Your task to perform on an android device: open a bookmark in the chrome app Image 0: 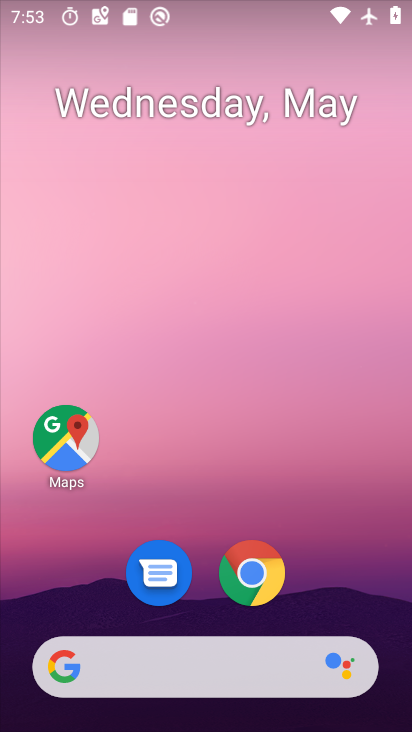
Step 0: click (262, 581)
Your task to perform on an android device: open a bookmark in the chrome app Image 1: 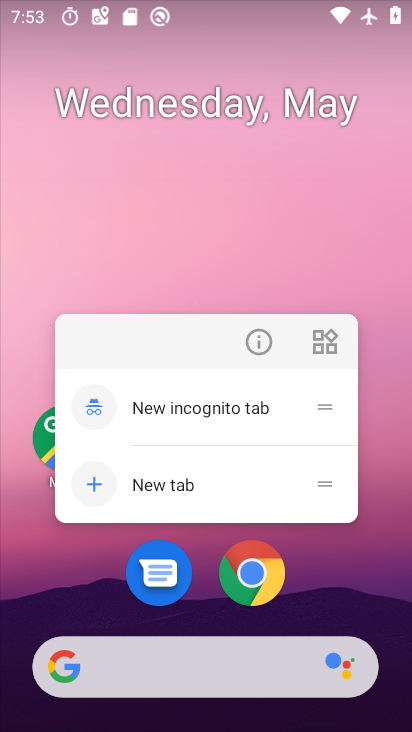
Step 1: click (263, 581)
Your task to perform on an android device: open a bookmark in the chrome app Image 2: 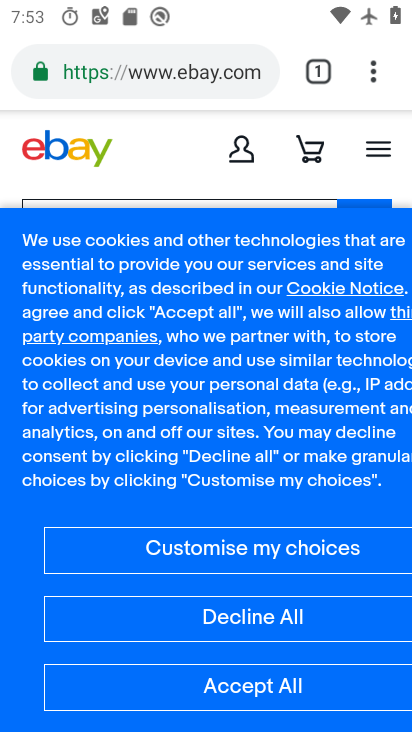
Step 2: click (371, 77)
Your task to perform on an android device: open a bookmark in the chrome app Image 3: 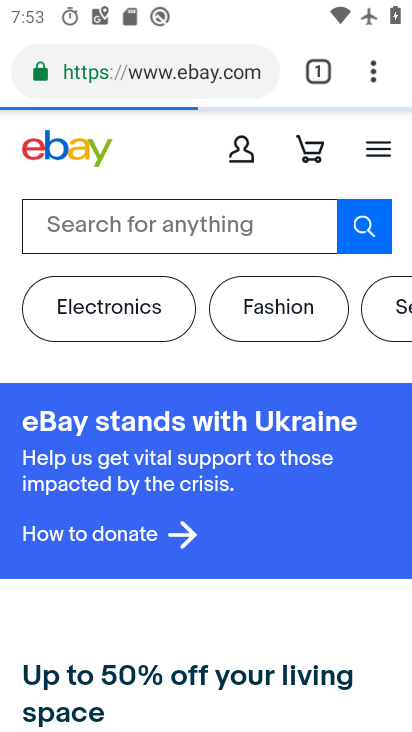
Step 3: click (371, 77)
Your task to perform on an android device: open a bookmark in the chrome app Image 4: 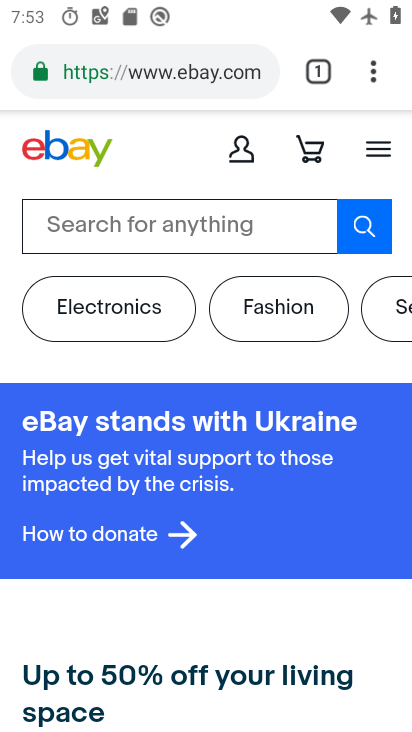
Step 4: click (394, 81)
Your task to perform on an android device: open a bookmark in the chrome app Image 5: 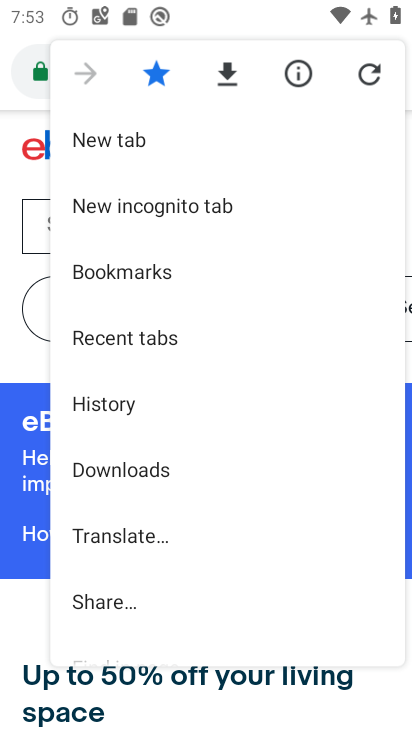
Step 5: click (207, 273)
Your task to perform on an android device: open a bookmark in the chrome app Image 6: 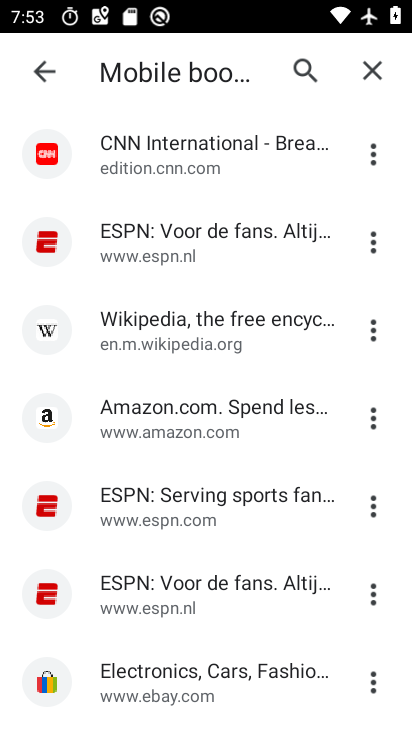
Step 6: click (206, 253)
Your task to perform on an android device: open a bookmark in the chrome app Image 7: 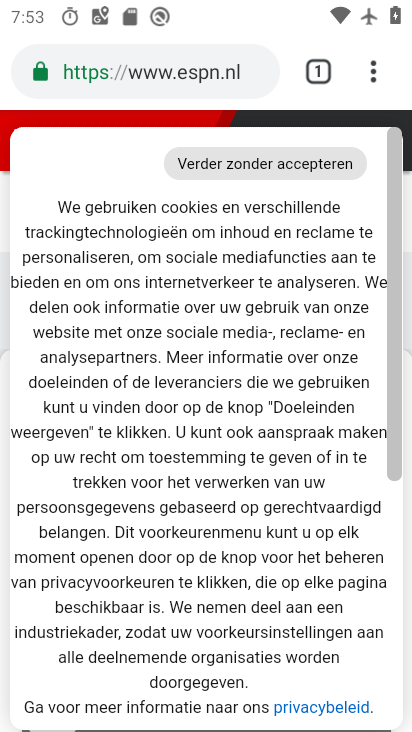
Step 7: task complete